Your task to perform on an android device: Show me popular games on the Play Store Image 0: 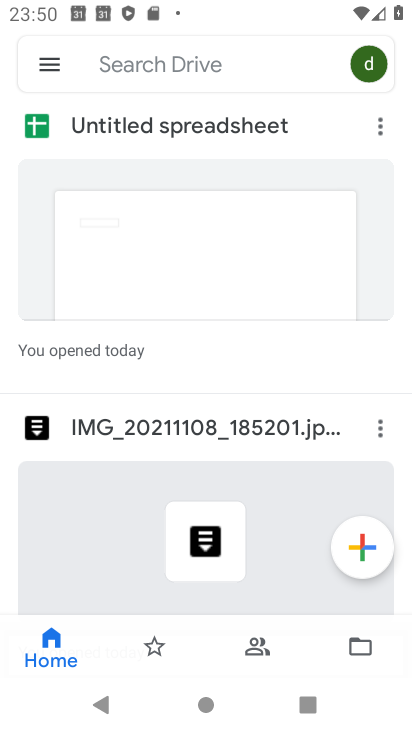
Step 0: press back button
Your task to perform on an android device: Show me popular games on the Play Store Image 1: 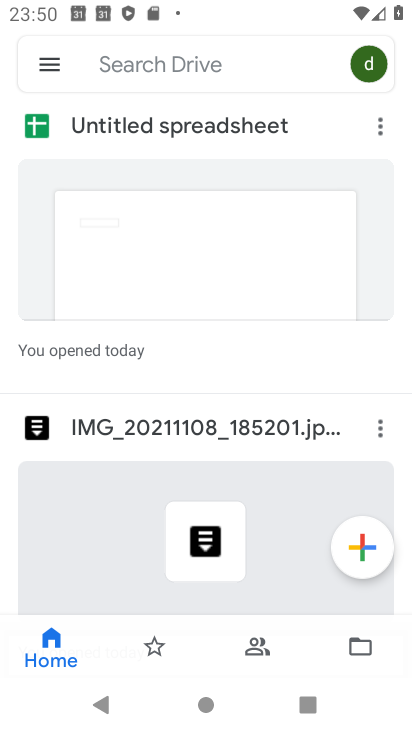
Step 1: press back button
Your task to perform on an android device: Show me popular games on the Play Store Image 2: 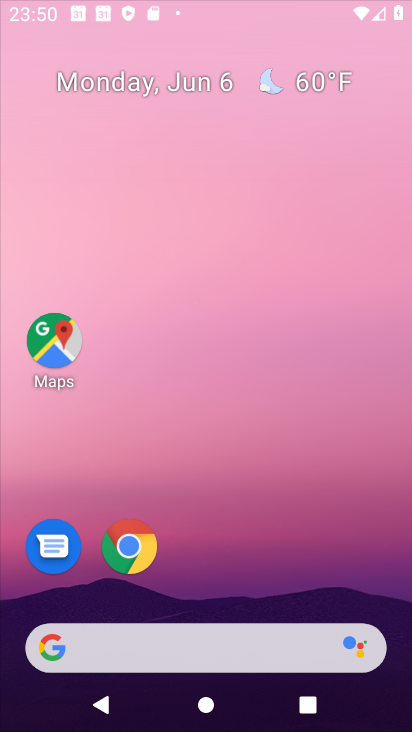
Step 2: press back button
Your task to perform on an android device: Show me popular games on the Play Store Image 3: 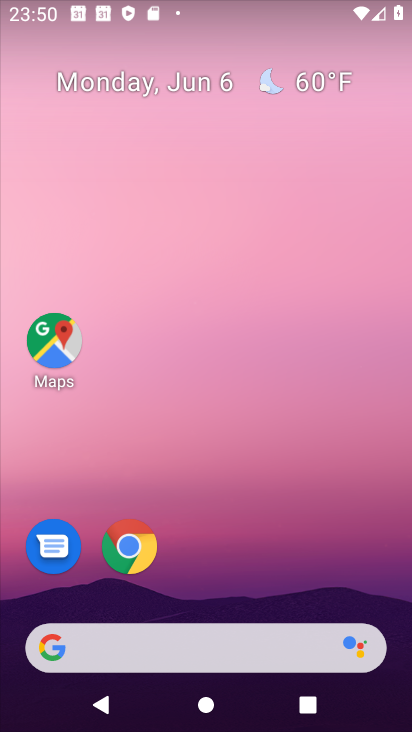
Step 3: drag from (250, 673) to (202, 15)
Your task to perform on an android device: Show me popular games on the Play Store Image 4: 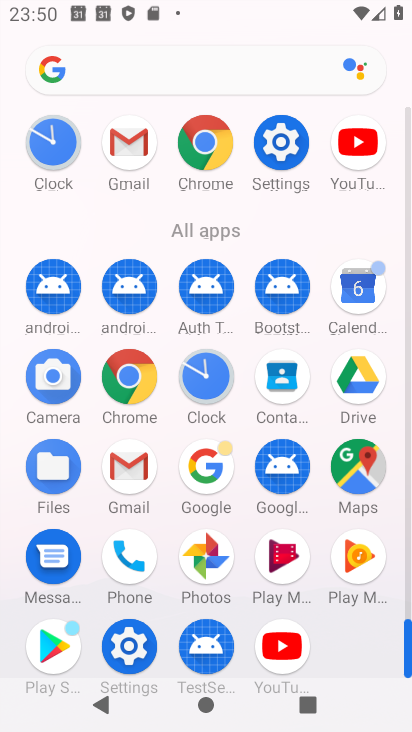
Step 4: click (55, 655)
Your task to perform on an android device: Show me popular games on the Play Store Image 5: 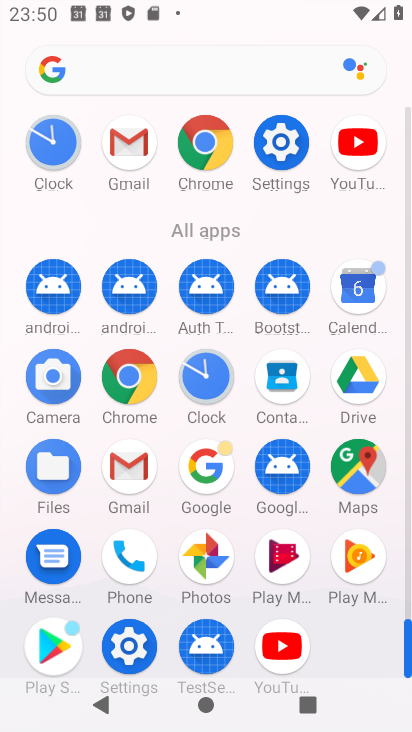
Step 5: click (54, 654)
Your task to perform on an android device: Show me popular games on the Play Store Image 6: 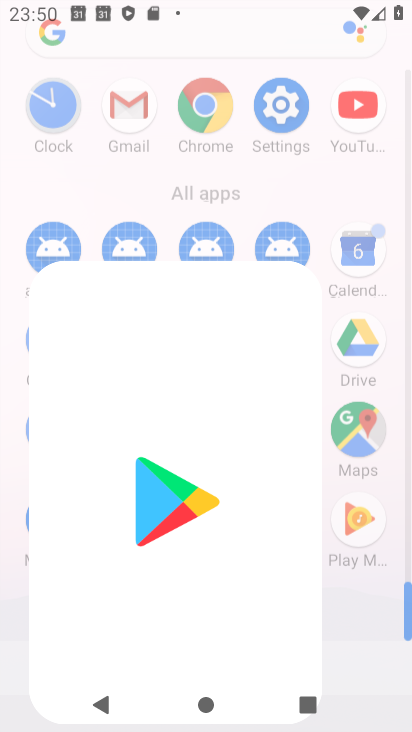
Step 6: click (51, 654)
Your task to perform on an android device: Show me popular games on the Play Store Image 7: 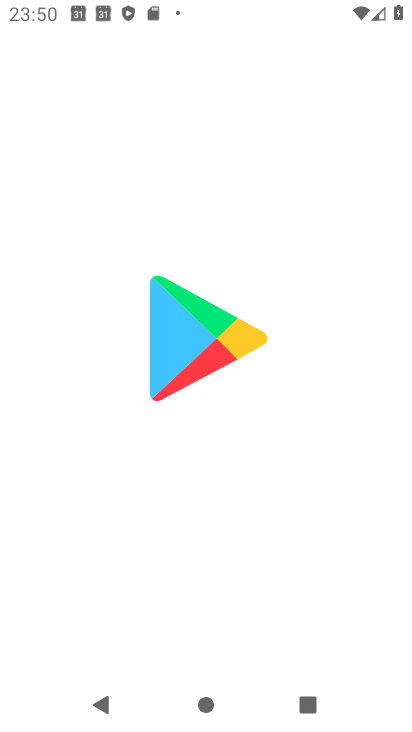
Step 7: click (46, 646)
Your task to perform on an android device: Show me popular games on the Play Store Image 8: 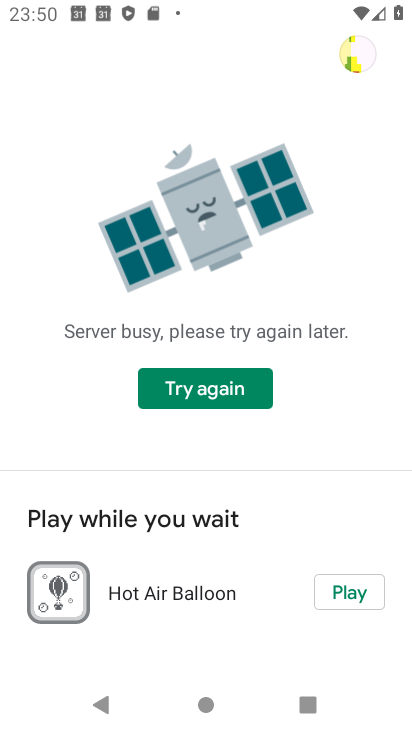
Step 8: task complete